Your task to perform on an android device: check data usage Image 0: 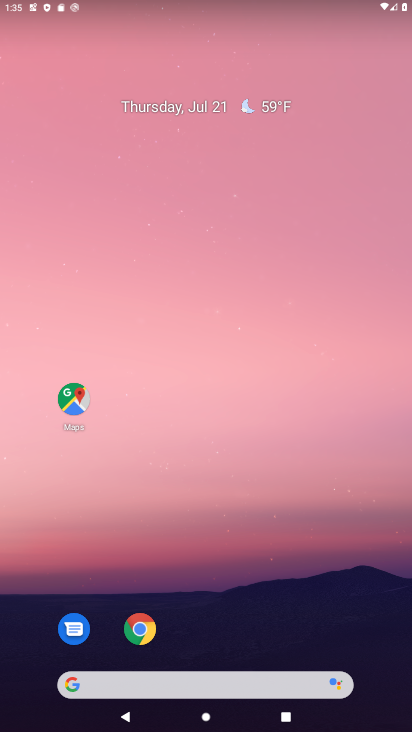
Step 0: drag from (378, 652) to (339, 117)
Your task to perform on an android device: check data usage Image 1: 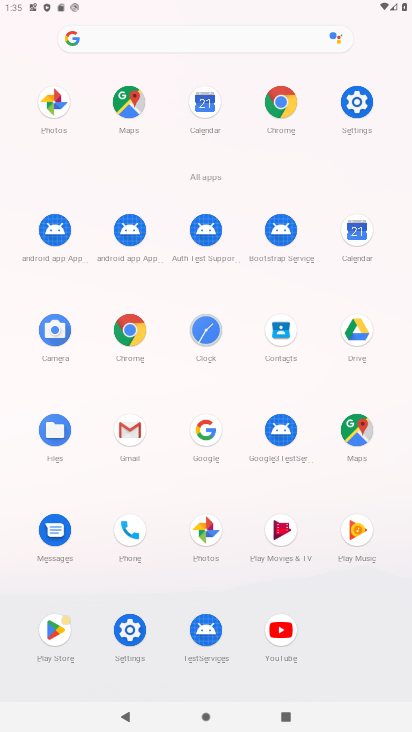
Step 1: click (130, 629)
Your task to perform on an android device: check data usage Image 2: 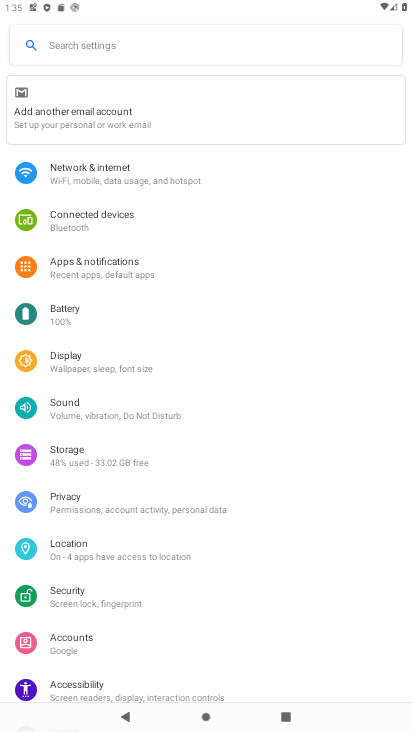
Step 2: click (83, 163)
Your task to perform on an android device: check data usage Image 3: 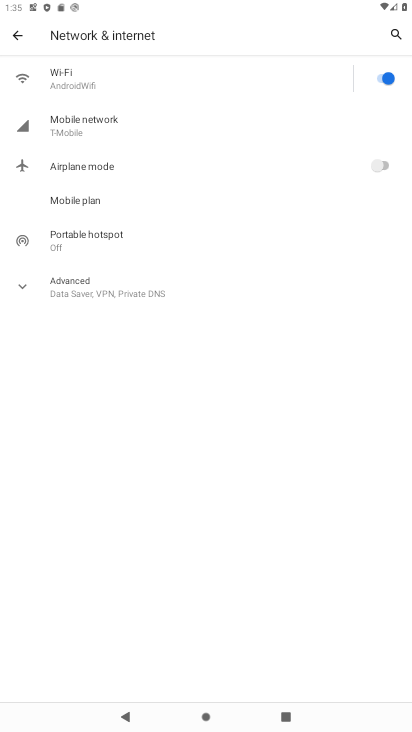
Step 3: click (74, 112)
Your task to perform on an android device: check data usage Image 4: 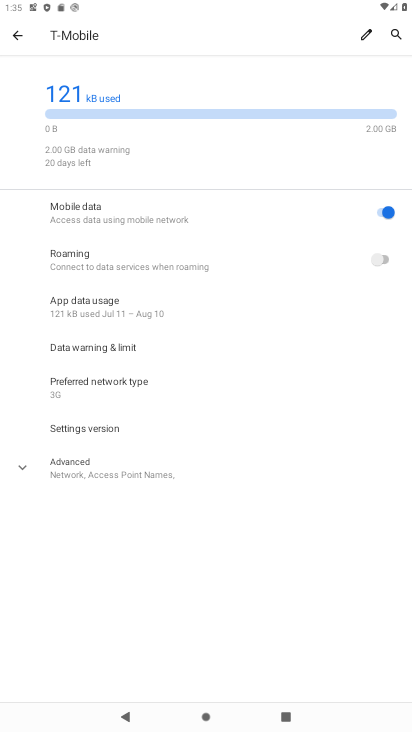
Step 4: task complete